Your task to perform on an android device: open app "ZOOM Cloud Meetings" (install if not already installed) Image 0: 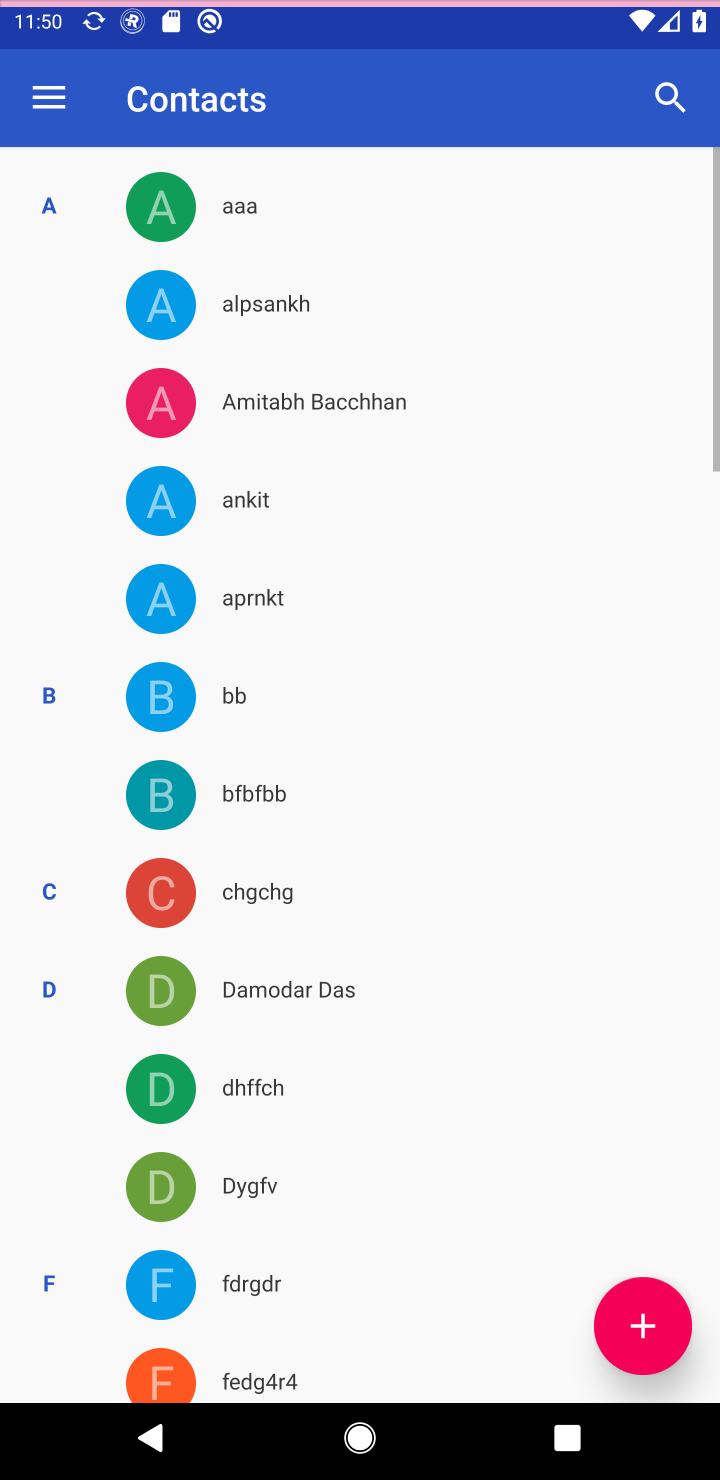
Step 0: press home button
Your task to perform on an android device: open app "ZOOM Cloud Meetings" (install if not already installed) Image 1: 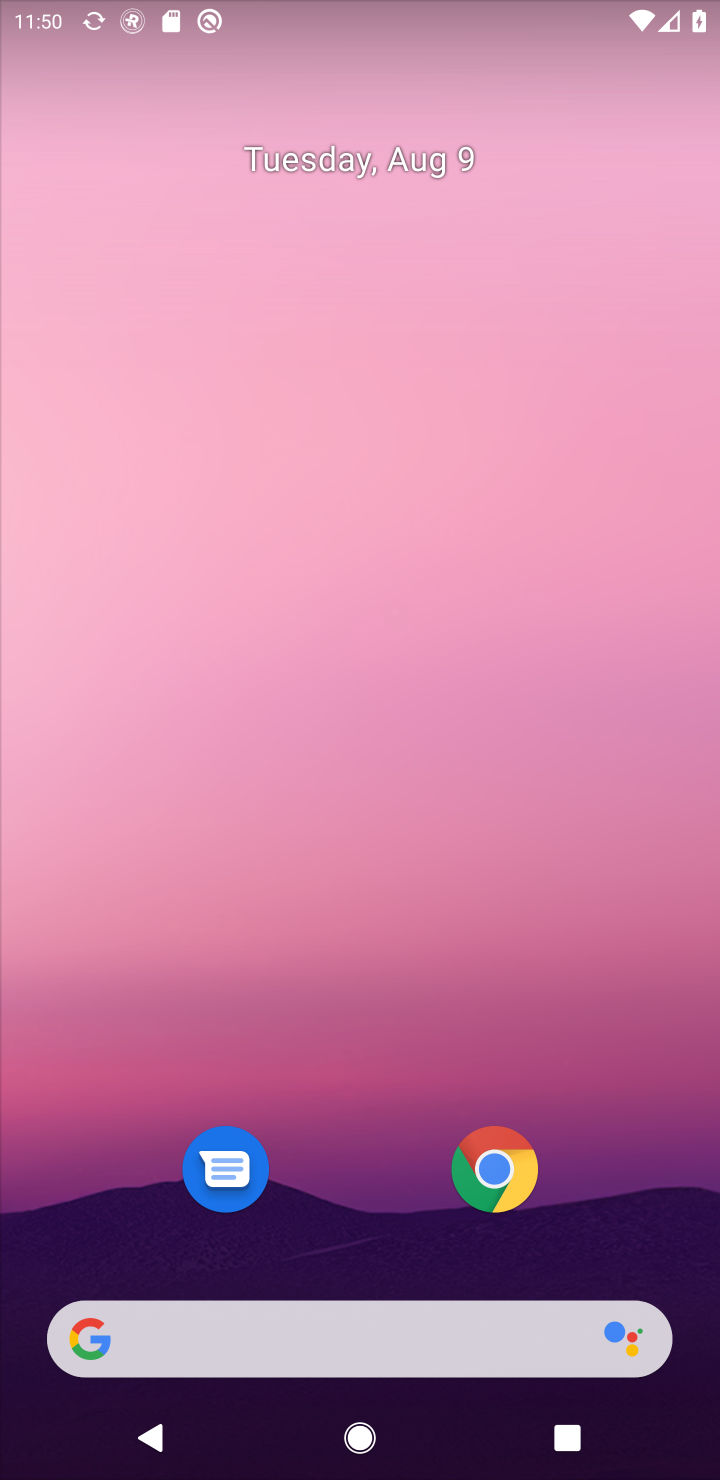
Step 1: press home button
Your task to perform on an android device: open app "ZOOM Cloud Meetings" (install if not already installed) Image 2: 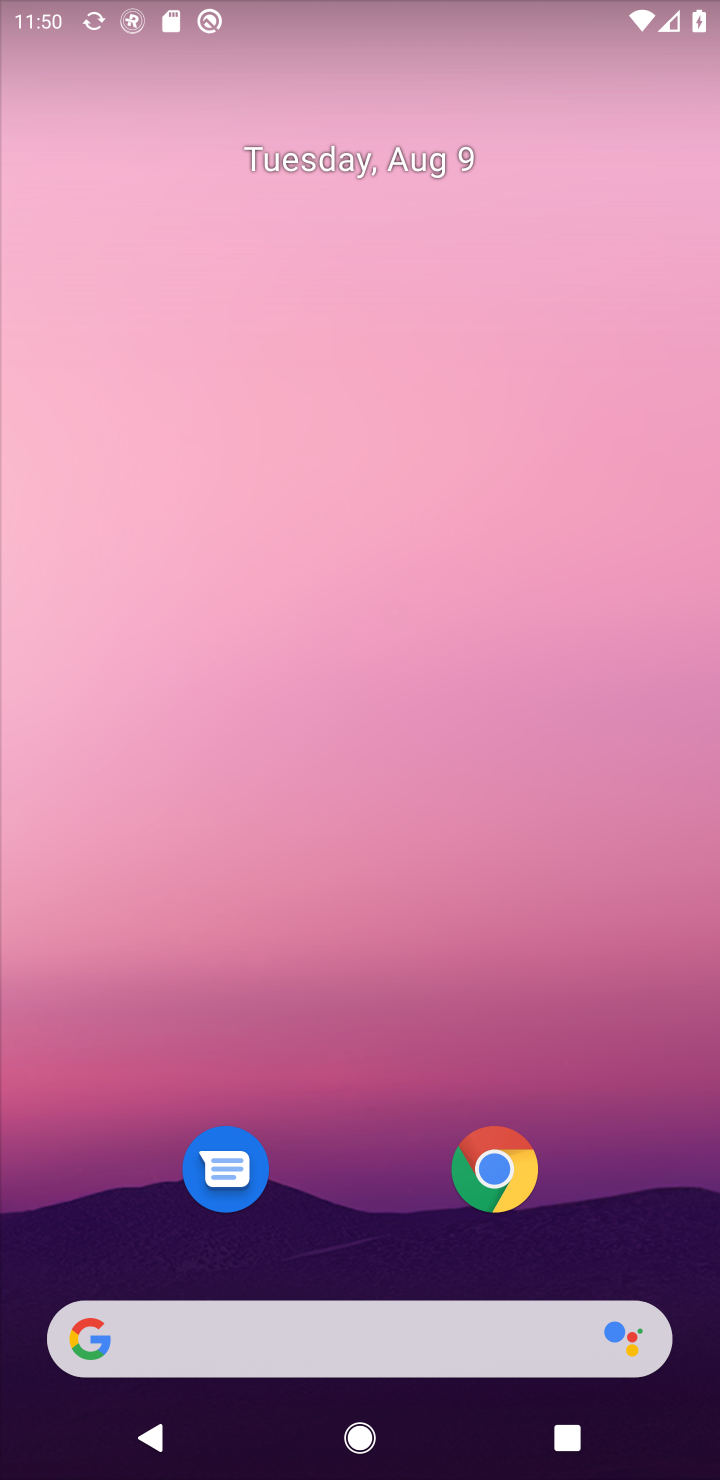
Step 2: drag from (611, 800) to (630, 173)
Your task to perform on an android device: open app "ZOOM Cloud Meetings" (install if not already installed) Image 3: 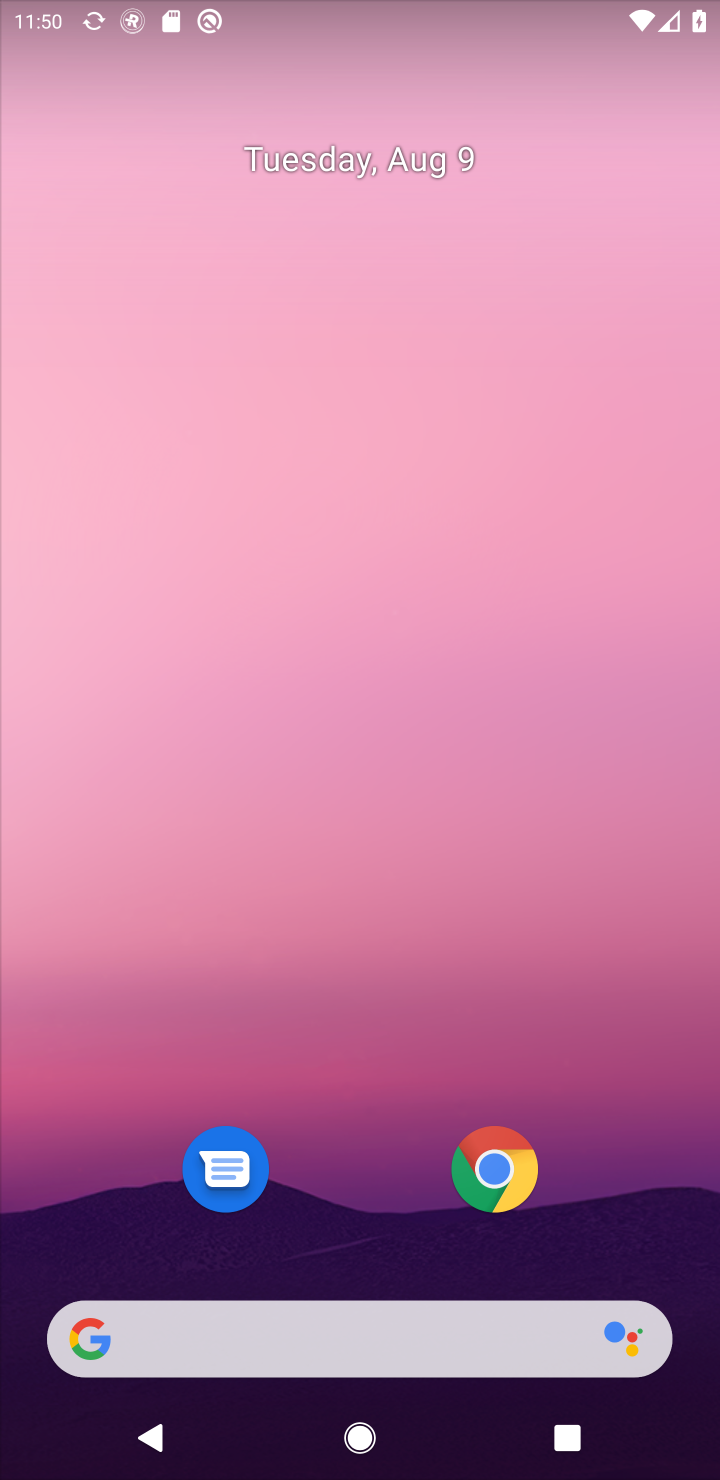
Step 3: drag from (615, 1165) to (603, 110)
Your task to perform on an android device: open app "ZOOM Cloud Meetings" (install if not already installed) Image 4: 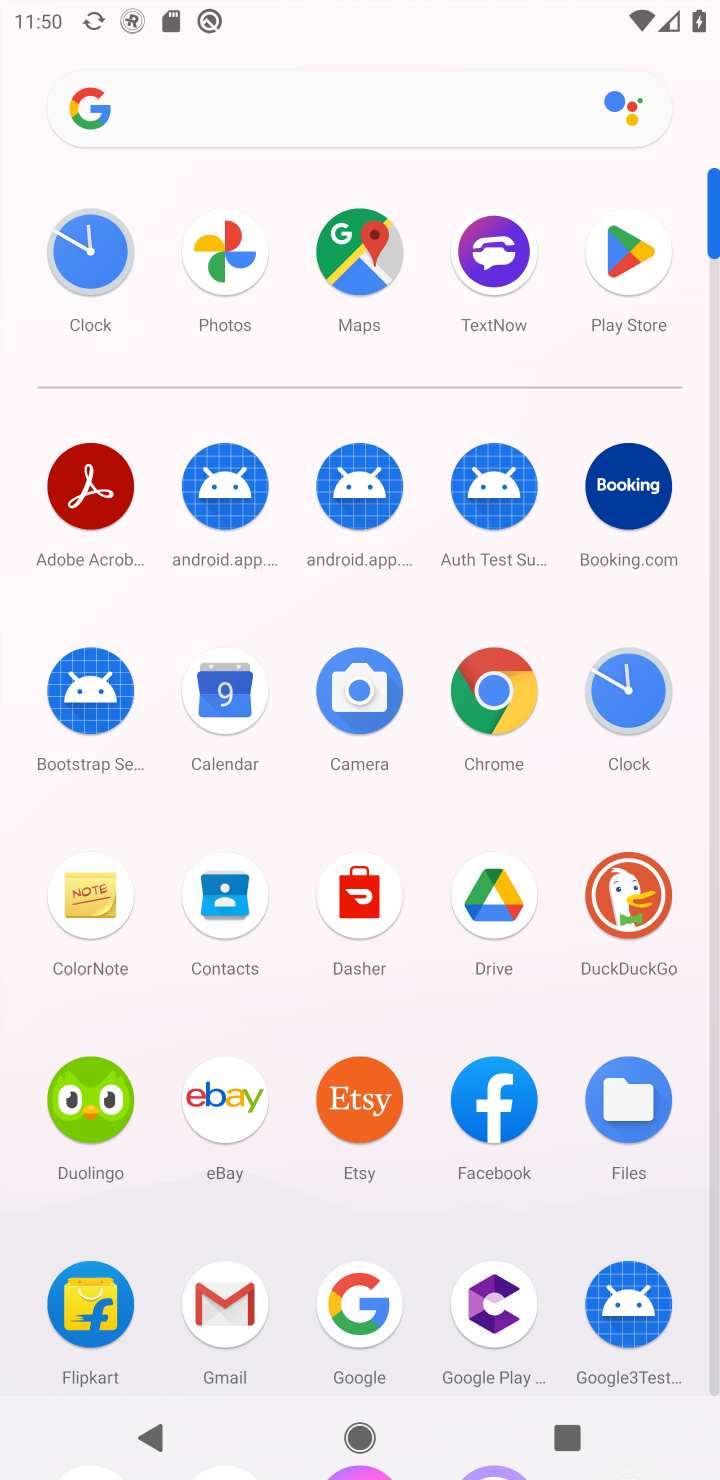
Step 4: click (619, 239)
Your task to perform on an android device: open app "ZOOM Cloud Meetings" (install if not already installed) Image 5: 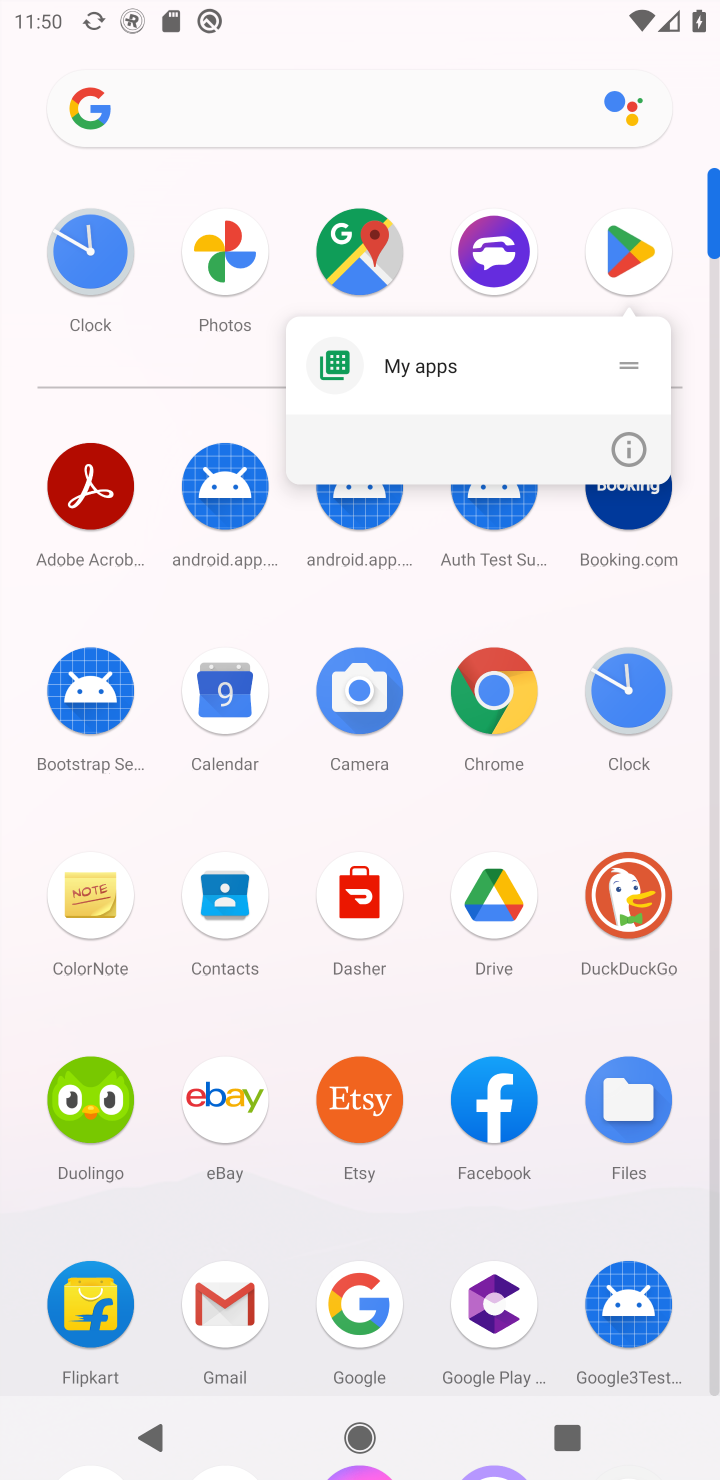
Step 5: click (634, 232)
Your task to perform on an android device: open app "ZOOM Cloud Meetings" (install if not already installed) Image 6: 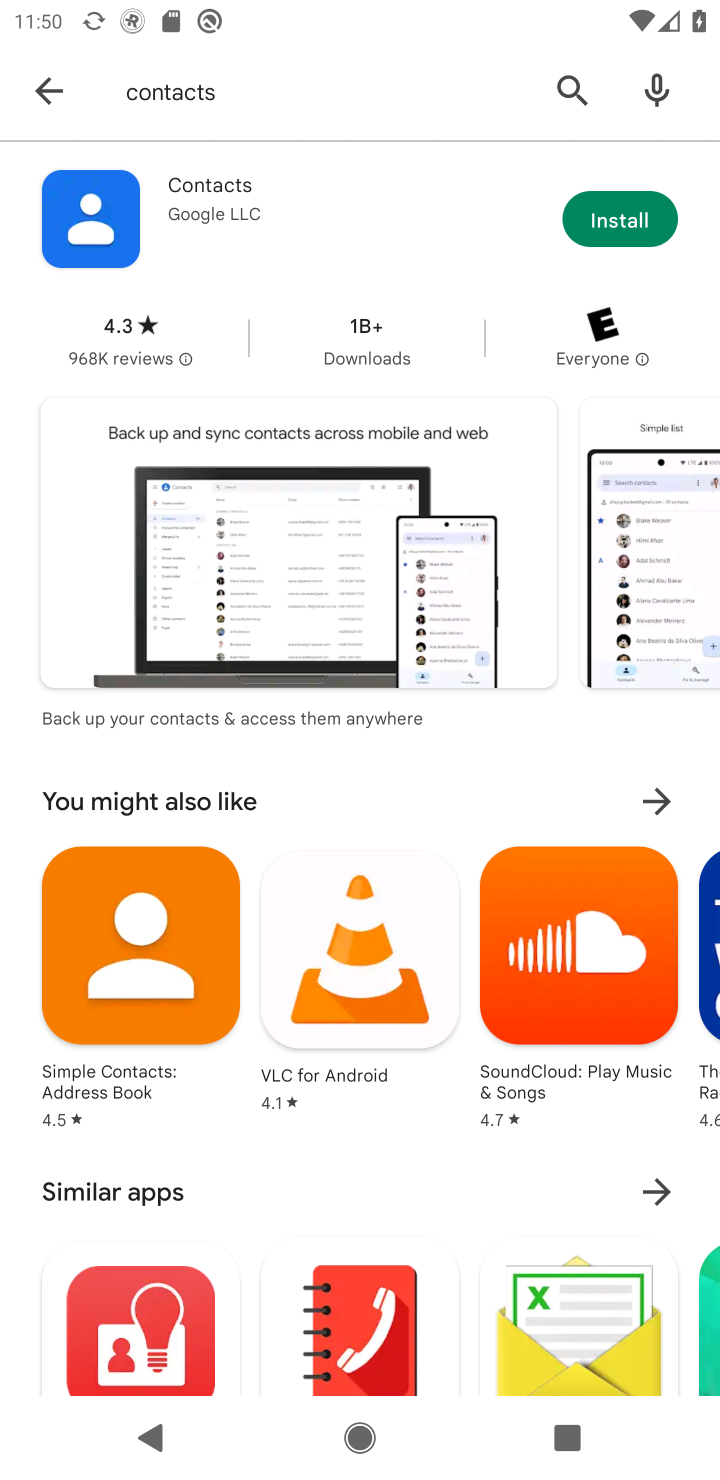
Step 6: click (567, 72)
Your task to perform on an android device: open app "ZOOM Cloud Meetings" (install if not already installed) Image 7: 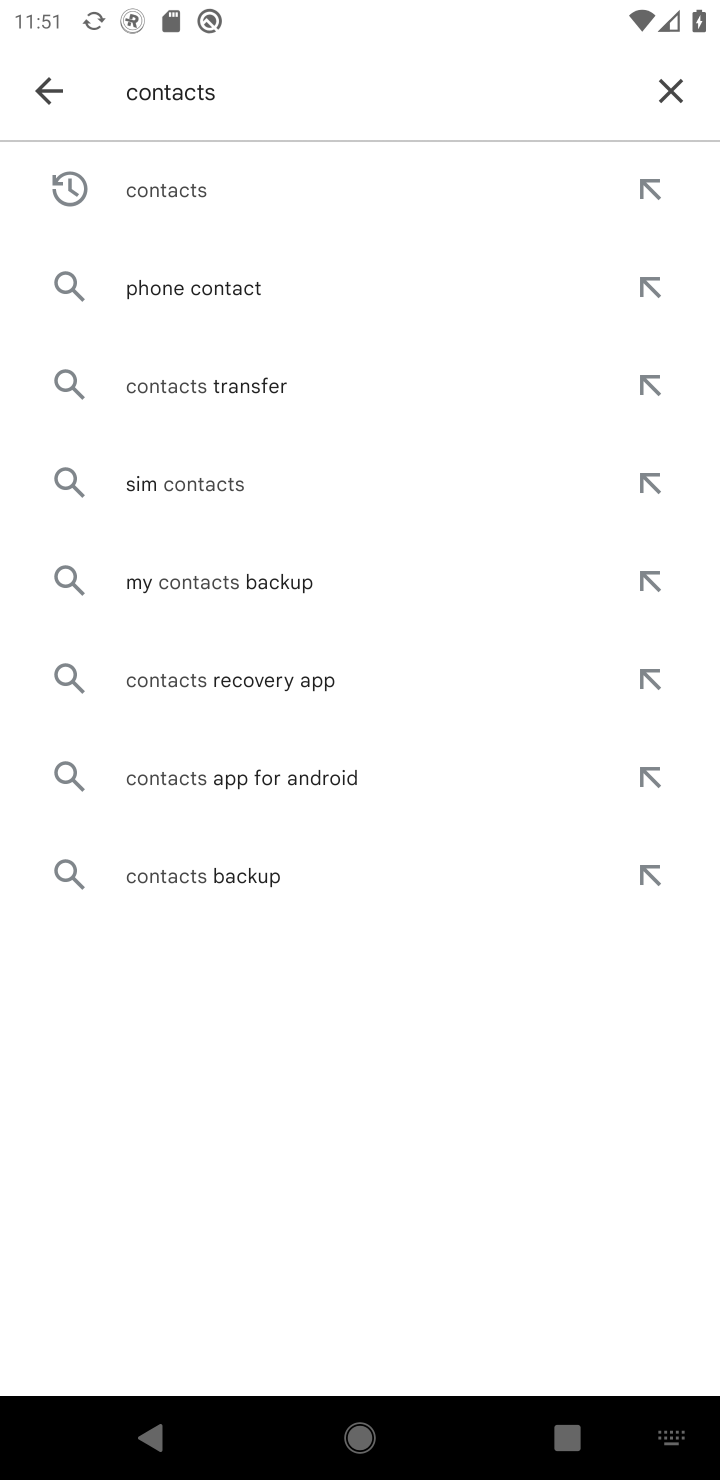
Step 7: click (669, 89)
Your task to perform on an android device: open app "ZOOM Cloud Meetings" (install if not already installed) Image 8: 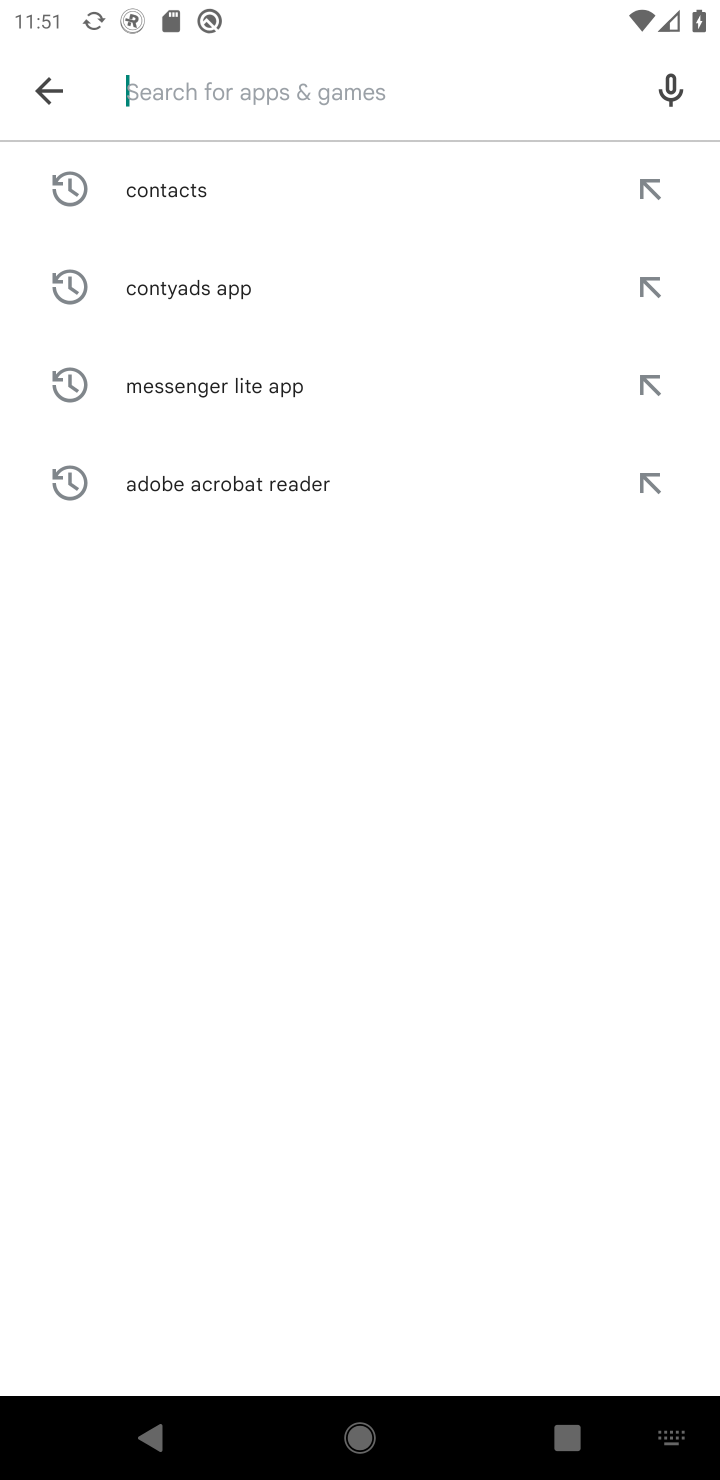
Step 8: type "OOM Cloud Meetings"
Your task to perform on an android device: open app "ZOOM Cloud Meetings" (install if not already installed) Image 9: 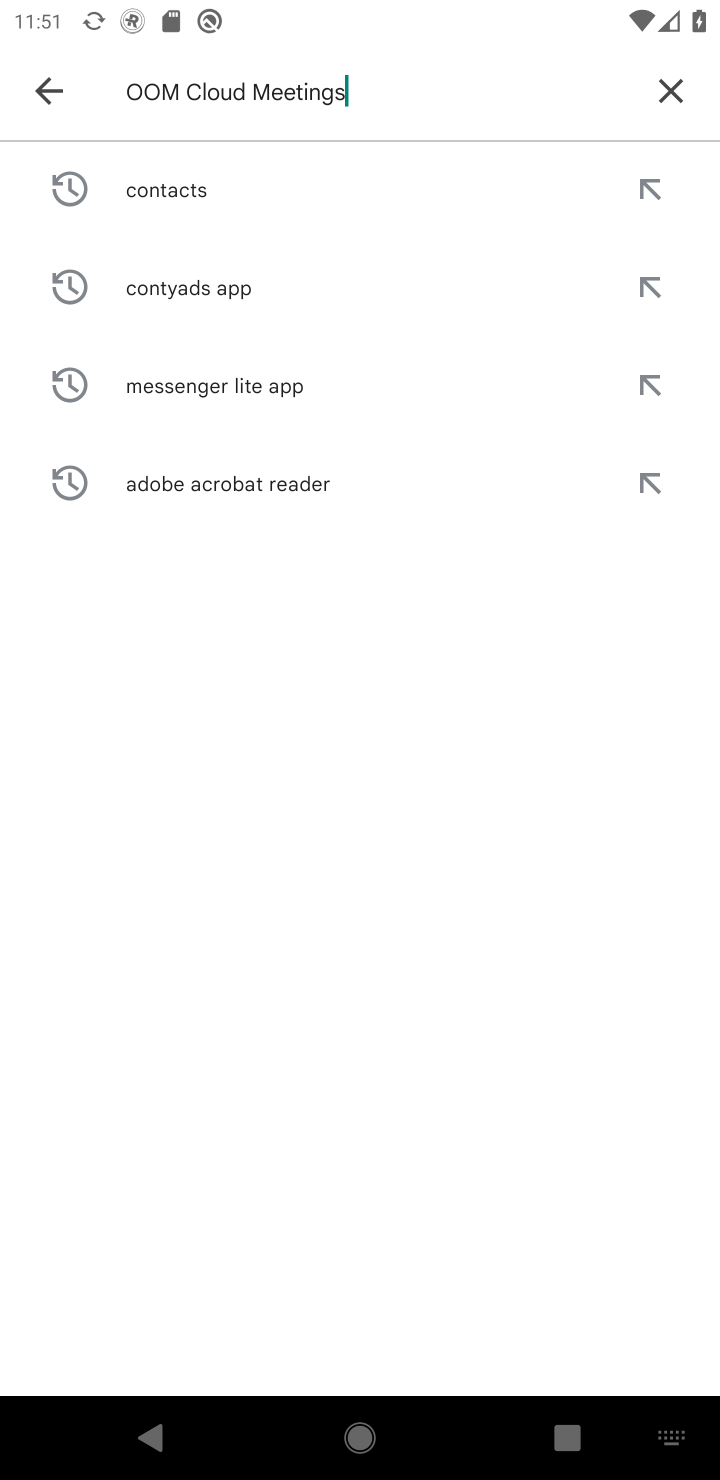
Step 9: press enter
Your task to perform on an android device: open app "ZOOM Cloud Meetings" (install if not already installed) Image 10: 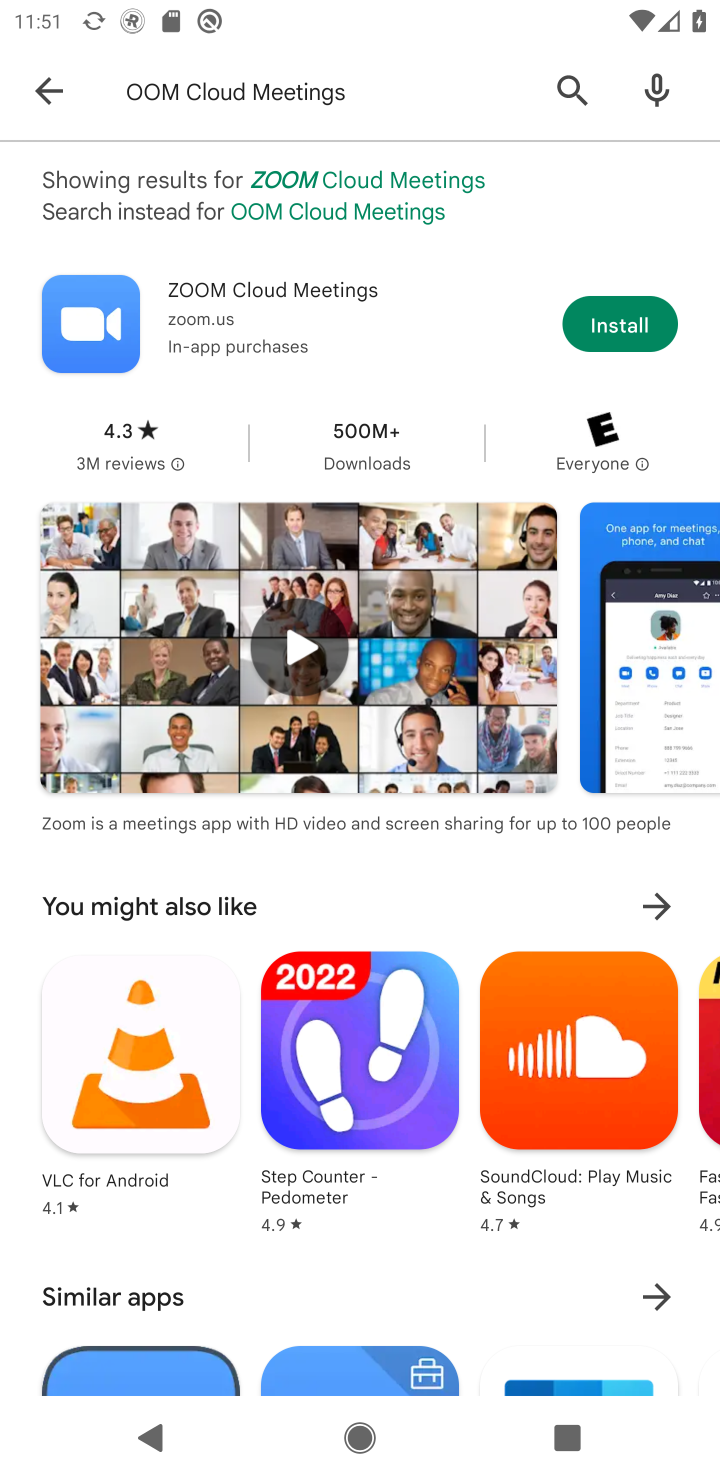
Step 10: click (614, 330)
Your task to perform on an android device: open app "ZOOM Cloud Meetings" (install if not already installed) Image 11: 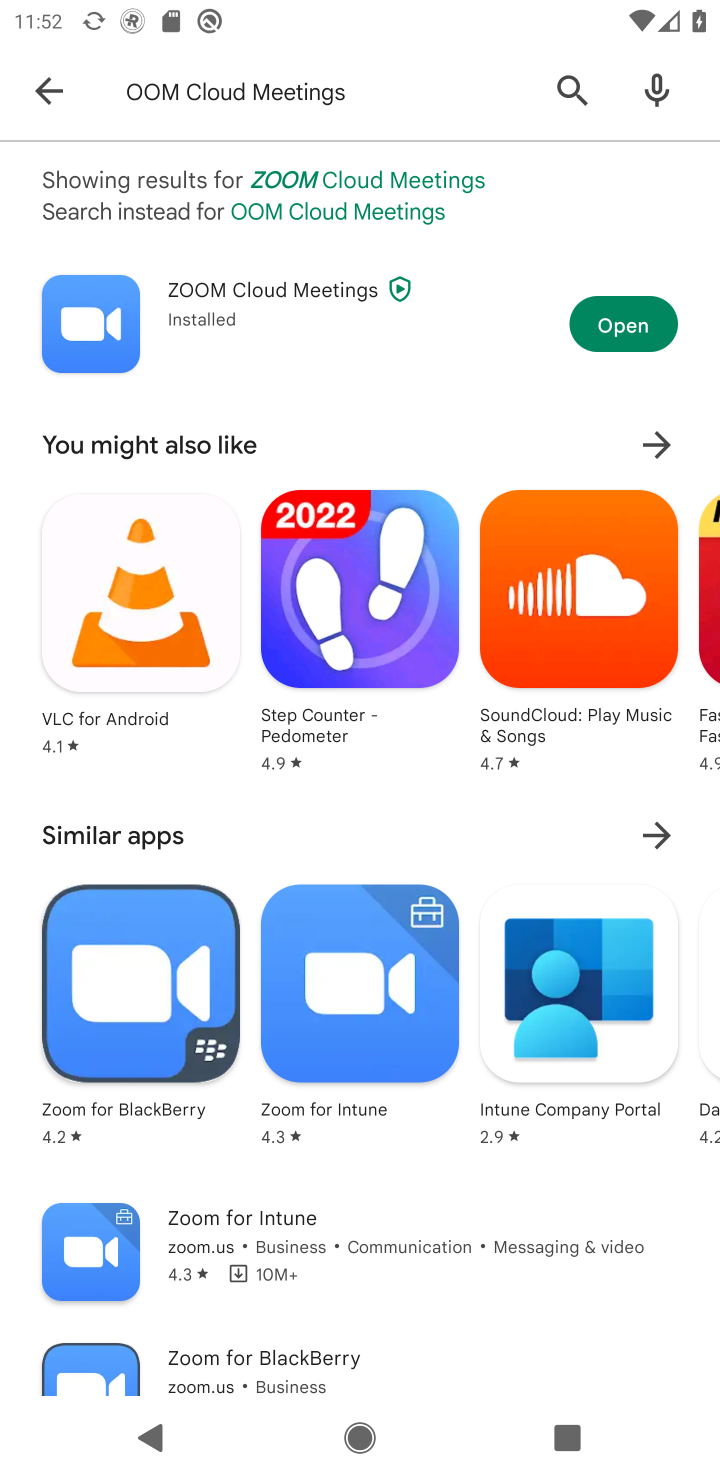
Step 11: click (618, 323)
Your task to perform on an android device: open app "ZOOM Cloud Meetings" (install if not already installed) Image 12: 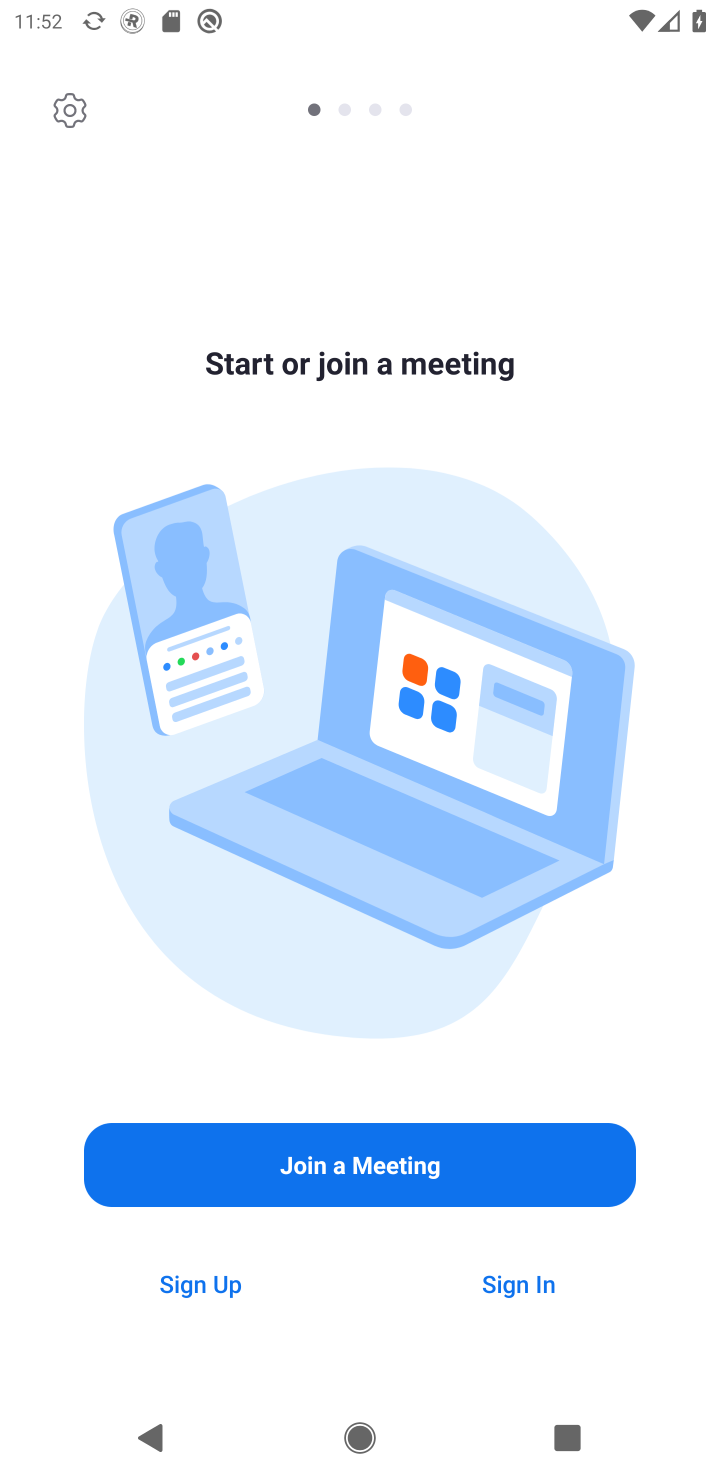
Step 12: task complete